Your task to perform on an android device: set default search engine in the chrome app Image 0: 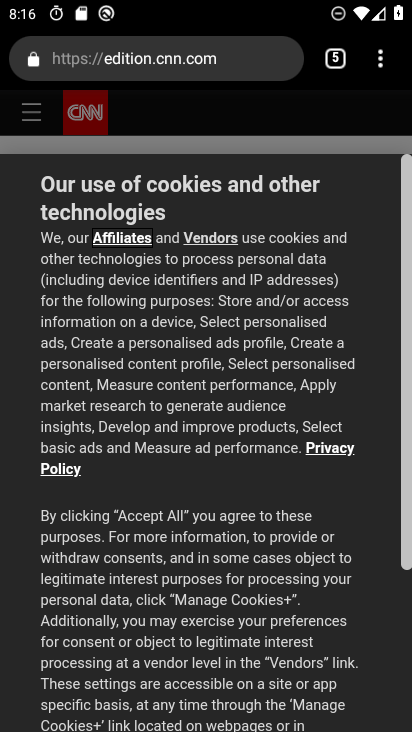
Step 0: press home button
Your task to perform on an android device: set default search engine in the chrome app Image 1: 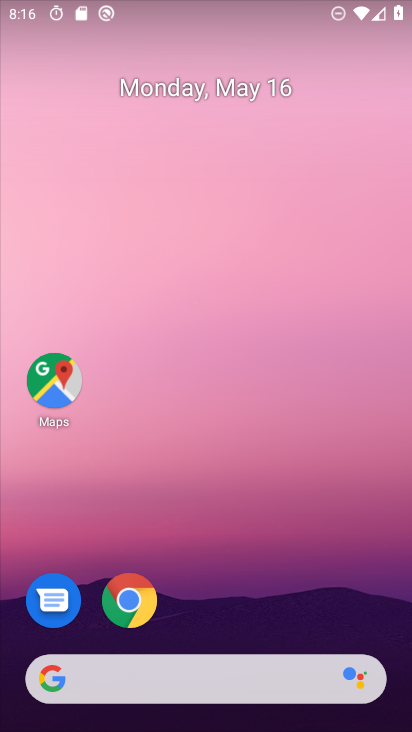
Step 1: click (133, 610)
Your task to perform on an android device: set default search engine in the chrome app Image 2: 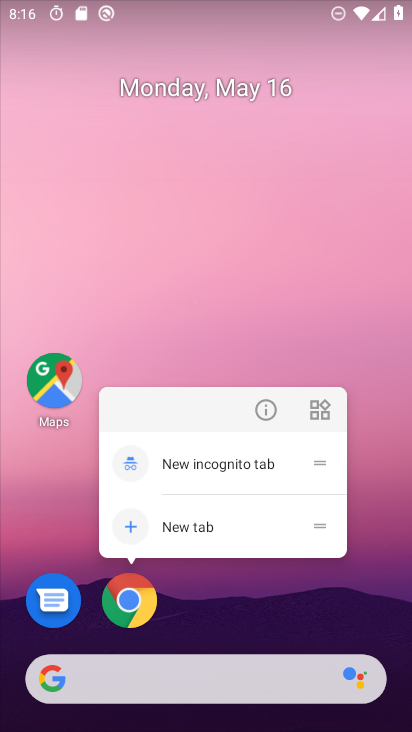
Step 2: click (139, 602)
Your task to perform on an android device: set default search engine in the chrome app Image 3: 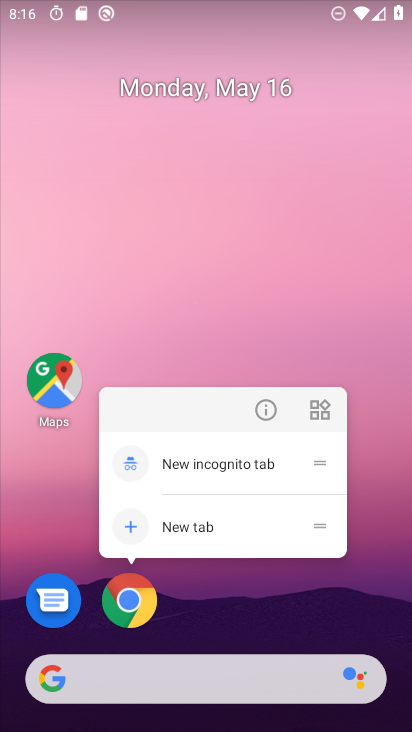
Step 3: click (128, 607)
Your task to perform on an android device: set default search engine in the chrome app Image 4: 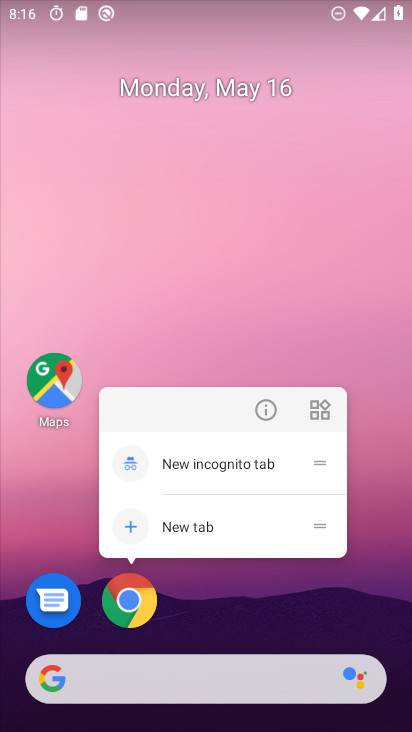
Step 4: click (129, 596)
Your task to perform on an android device: set default search engine in the chrome app Image 5: 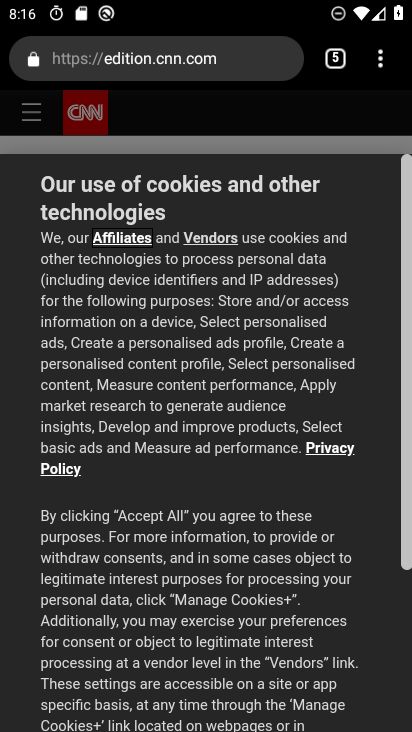
Step 5: drag from (377, 56) to (194, 631)
Your task to perform on an android device: set default search engine in the chrome app Image 6: 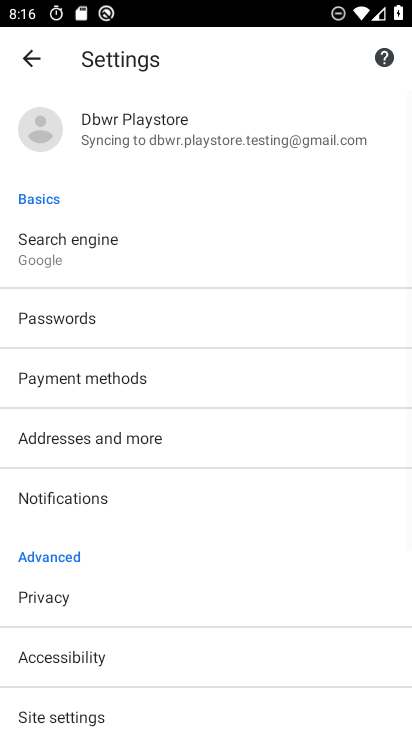
Step 6: click (63, 245)
Your task to perform on an android device: set default search engine in the chrome app Image 7: 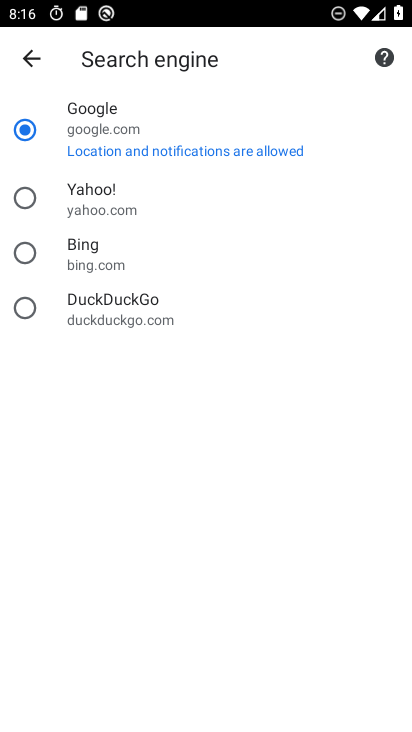
Step 7: click (27, 192)
Your task to perform on an android device: set default search engine in the chrome app Image 8: 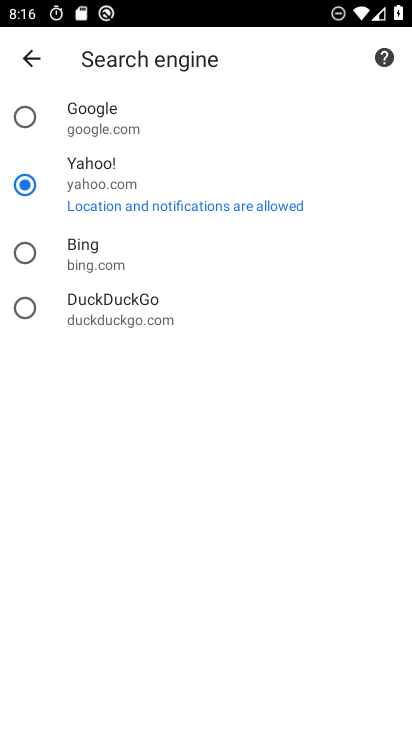
Step 8: task complete